Your task to perform on an android device: Search for seafood restaurants on Google Maps Image 0: 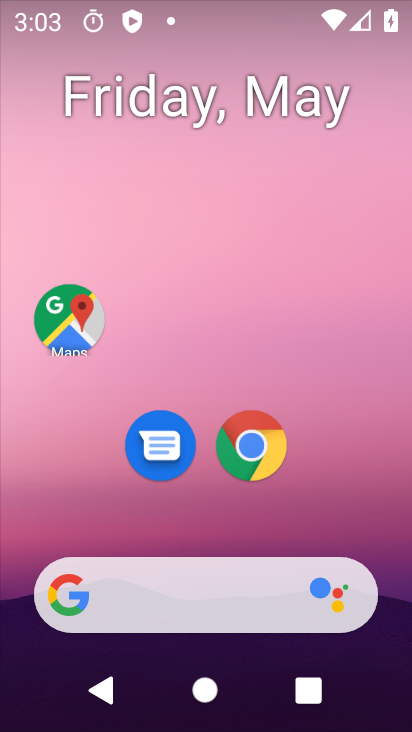
Step 0: drag from (201, 633) to (219, 170)
Your task to perform on an android device: Search for seafood restaurants on Google Maps Image 1: 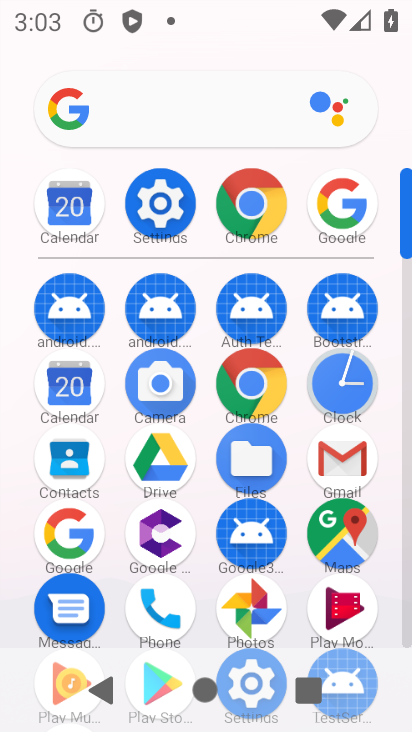
Step 1: click (336, 545)
Your task to perform on an android device: Search for seafood restaurants on Google Maps Image 2: 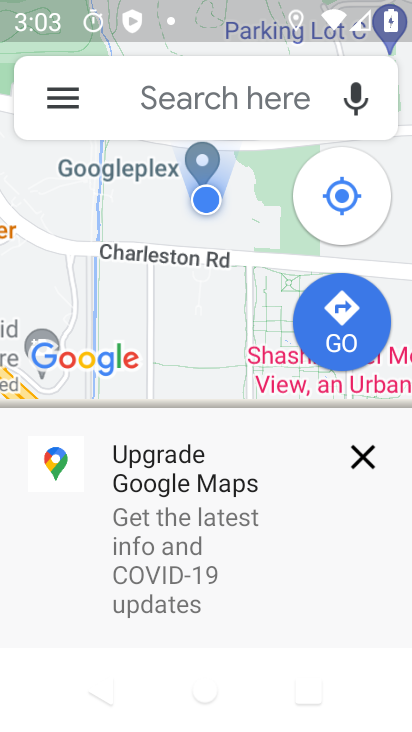
Step 2: click (370, 447)
Your task to perform on an android device: Search for seafood restaurants on Google Maps Image 3: 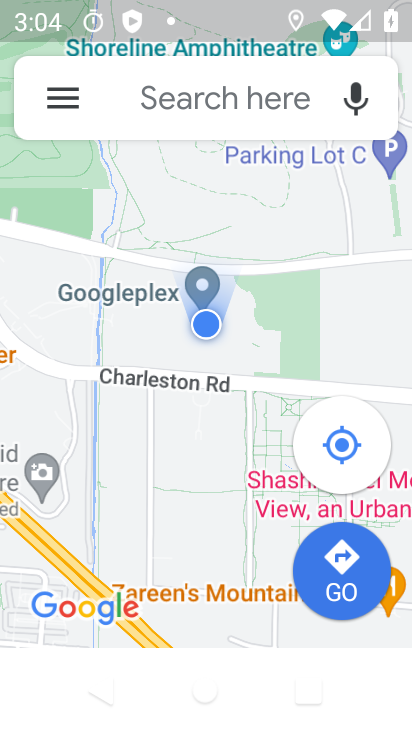
Step 3: click (221, 97)
Your task to perform on an android device: Search for seafood restaurants on Google Maps Image 4: 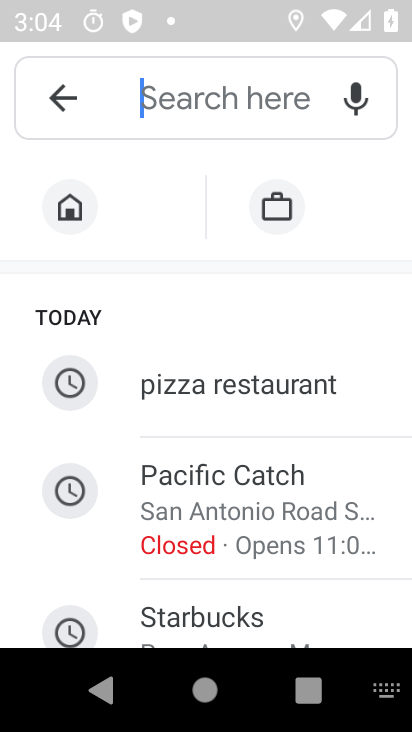
Step 4: drag from (217, 547) to (255, 302)
Your task to perform on an android device: Search for seafood restaurants on Google Maps Image 5: 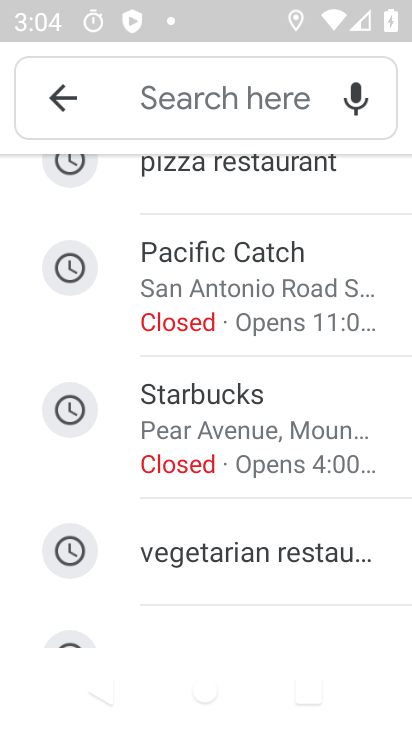
Step 5: drag from (228, 395) to (276, 172)
Your task to perform on an android device: Search for seafood restaurants on Google Maps Image 6: 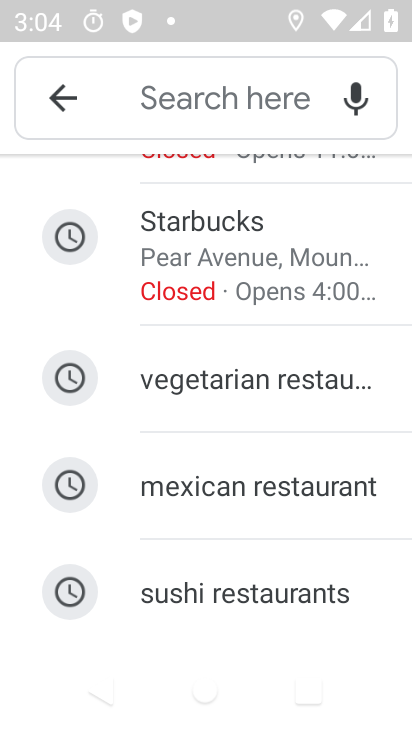
Step 6: drag from (214, 537) to (245, 301)
Your task to perform on an android device: Search for seafood restaurants on Google Maps Image 7: 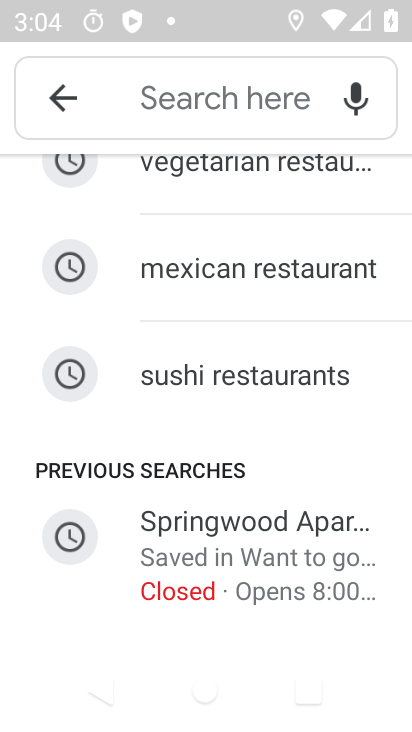
Step 7: click (142, 97)
Your task to perform on an android device: Search for seafood restaurants on Google Maps Image 8: 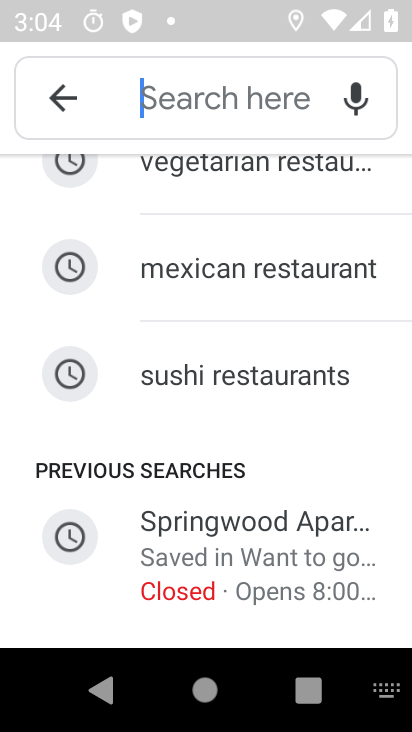
Step 8: type "seafood"
Your task to perform on an android device: Search for seafood restaurants on Google Maps Image 9: 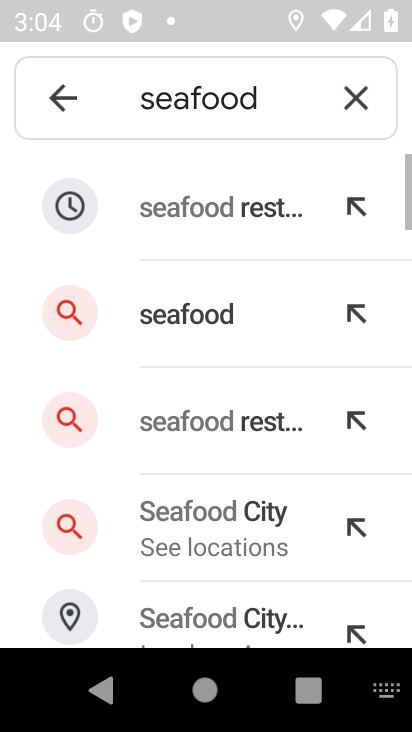
Step 9: click (259, 221)
Your task to perform on an android device: Search for seafood restaurants on Google Maps Image 10: 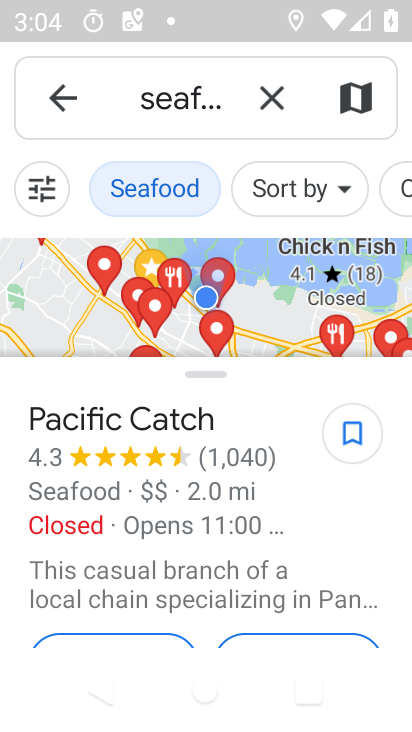
Step 10: task complete